Your task to perform on an android device: turn on improve location accuracy Image 0: 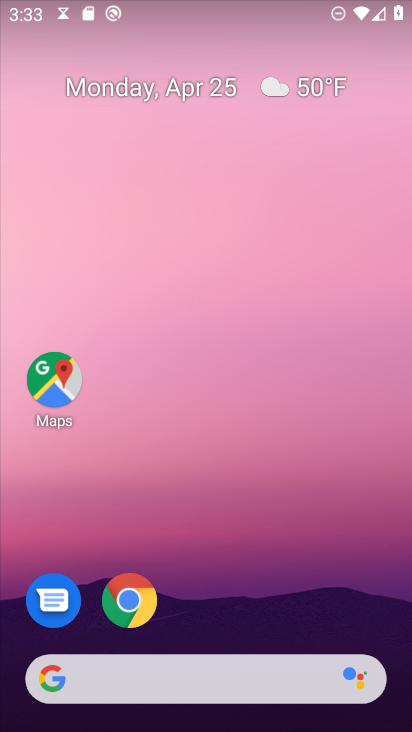
Step 0: drag from (212, 660) to (288, 26)
Your task to perform on an android device: turn on improve location accuracy Image 1: 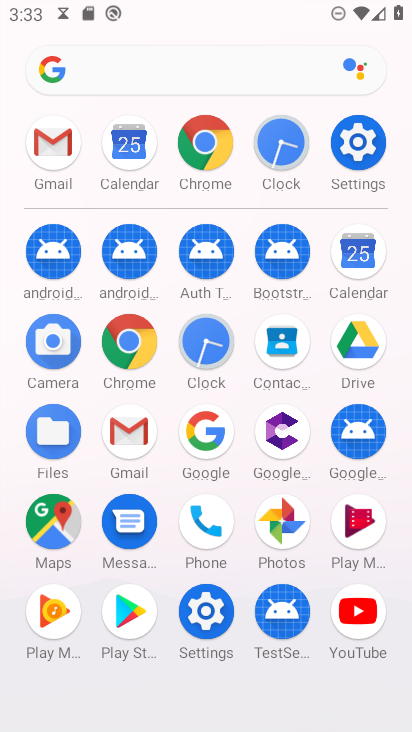
Step 1: click (355, 133)
Your task to perform on an android device: turn on improve location accuracy Image 2: 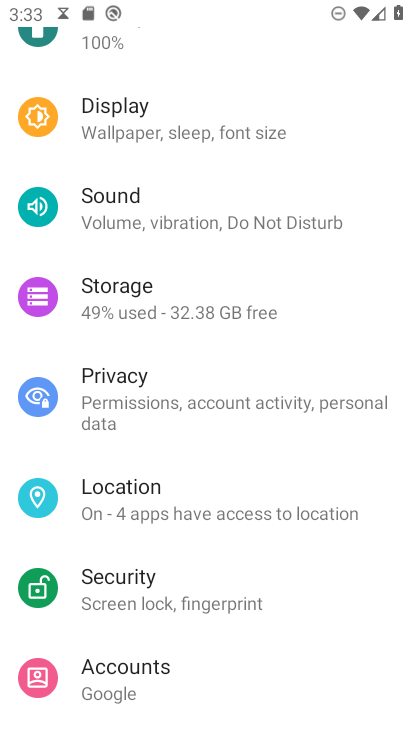
Step 2: click (179, 517)
Your task to perform on an android device: turn on improve location accuracy Image 3: 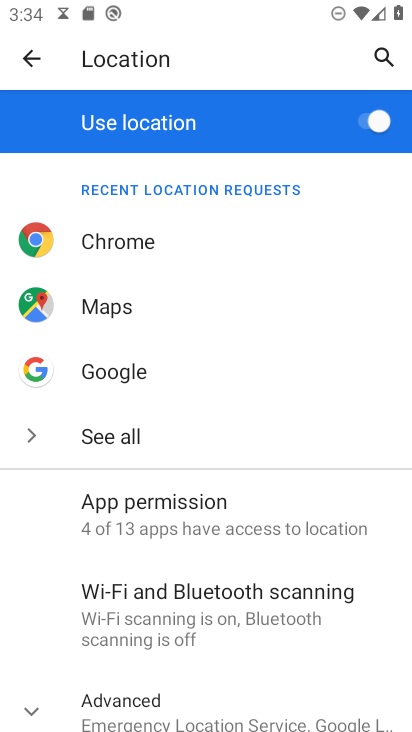
Step 3: task complete